Your task to perform on an android device: Go to settings Image 0: 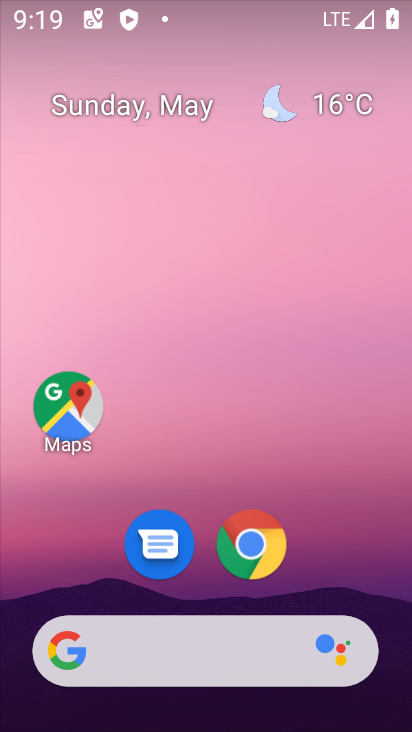
Step 0: click (274, 255)
Your task to perform on an android device: Go to settings Image 1: 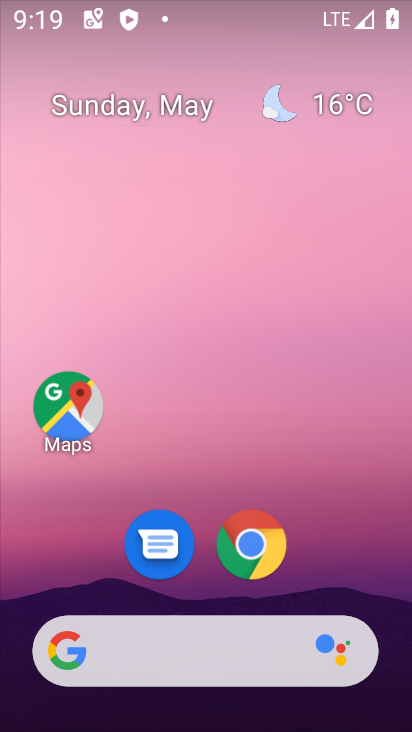
Step 1: drag from (289, 608) to (305, 142)
Your task to perform on an android device: Go to settings Image 2: 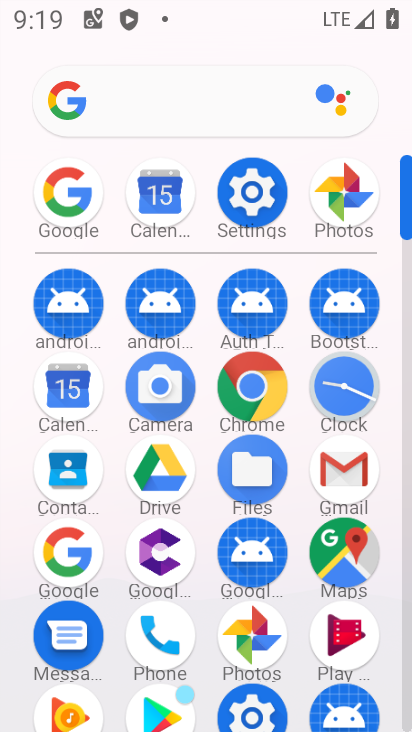
Step 2: click (253, 209)
Your task to perform on an android device: Go to settings Image 3: 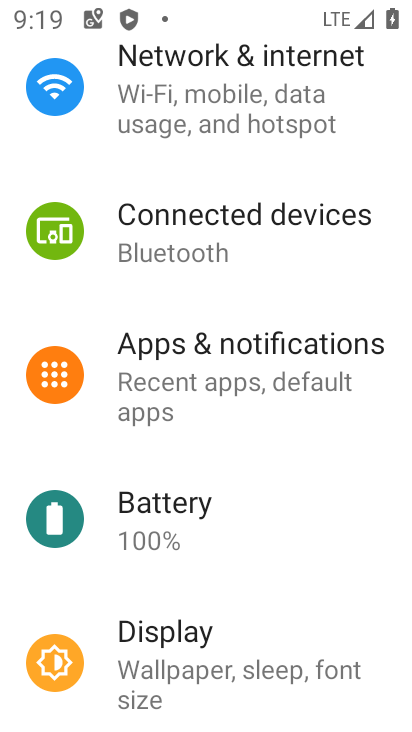
Step 3: task complete